Your task to perform on an android device: Go to internet settings Image 0: 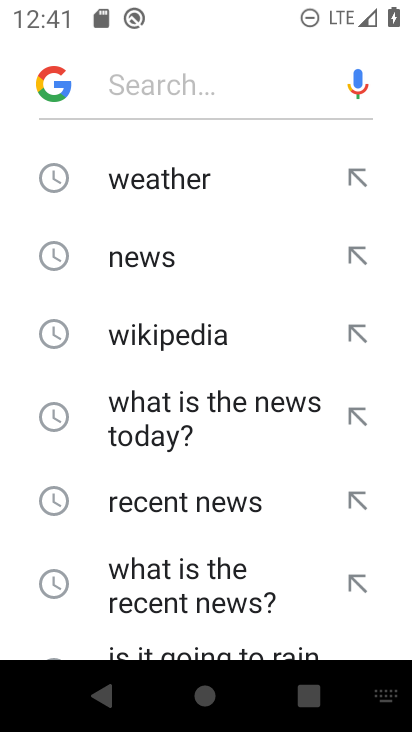
Step 0: press home button
Your task to perform on an android device: Go to internet settings Image 1: 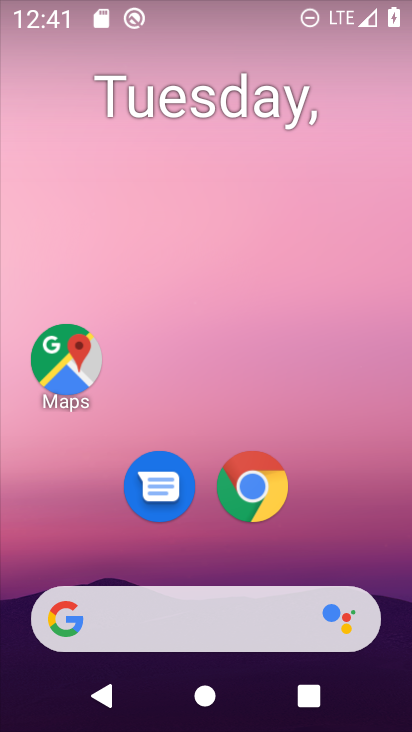
Step 1: drag from (242, 548) to (192, 180)
Your task to perform on an android device: Go to internet settings Image 2: 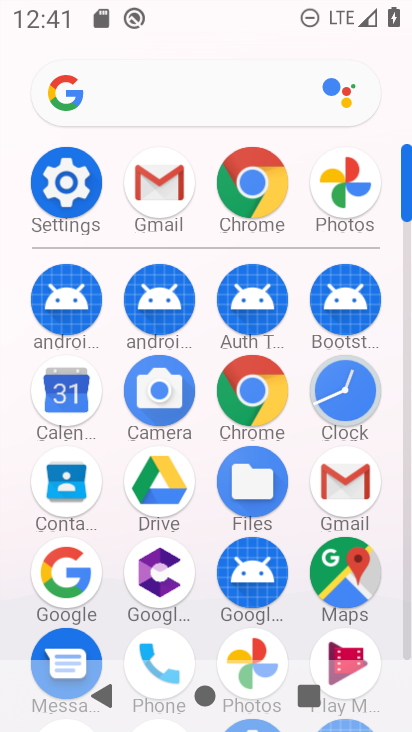
Step 2: drag from (191, 256) to (201, 57)
Your task to perform on an android device: Go to internet settings Image 3: 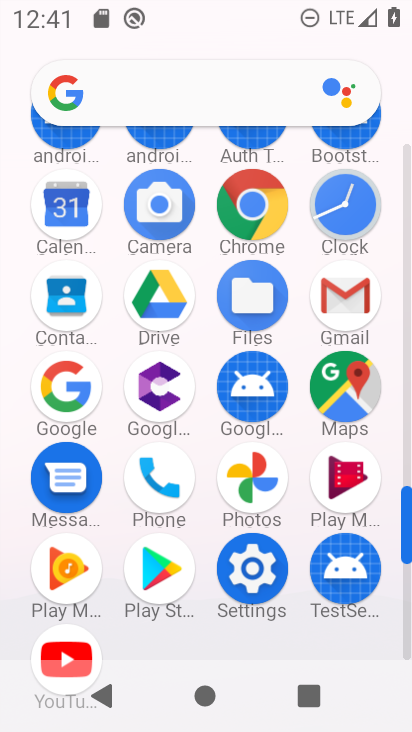
Step 3: click (247, 576)
Your task to perform on an android device: Go to internet settings Image 4: 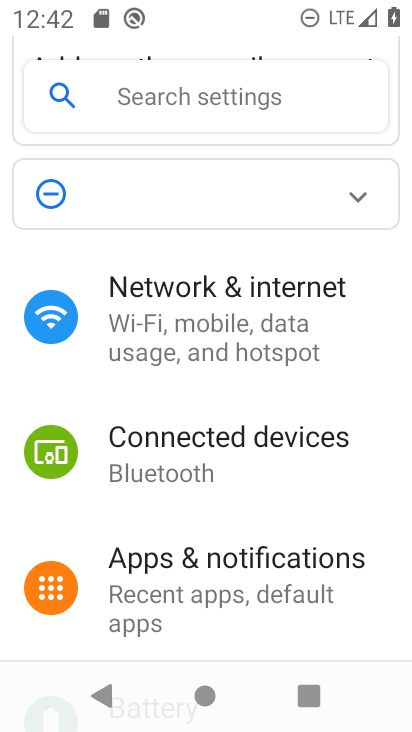
Step 4: click (213, 300)
Your task to perform on an android device: Go to internet settings Image 5: 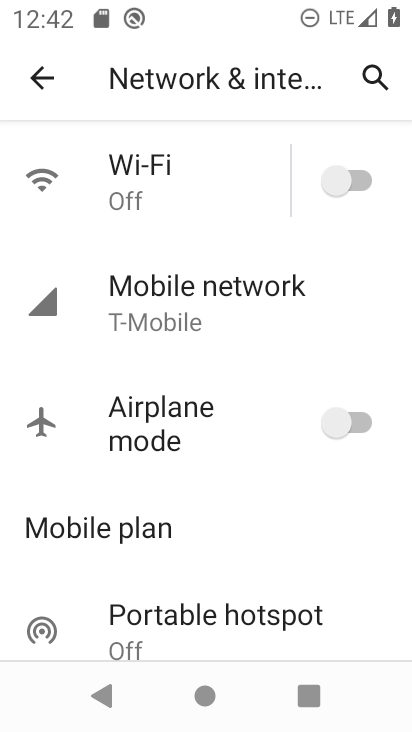
Step 5: click (239, 299)
Your task to perform on an android device: Go to internet settings Image 6: 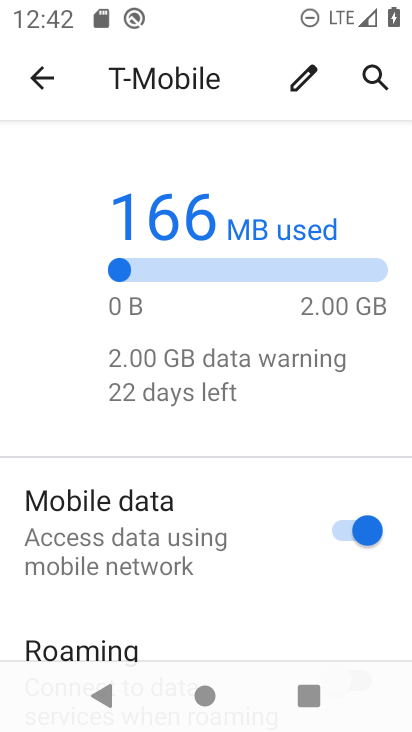
Step 6: task complete